Your task to perform on an android device: Do I have any events today? Image 0: 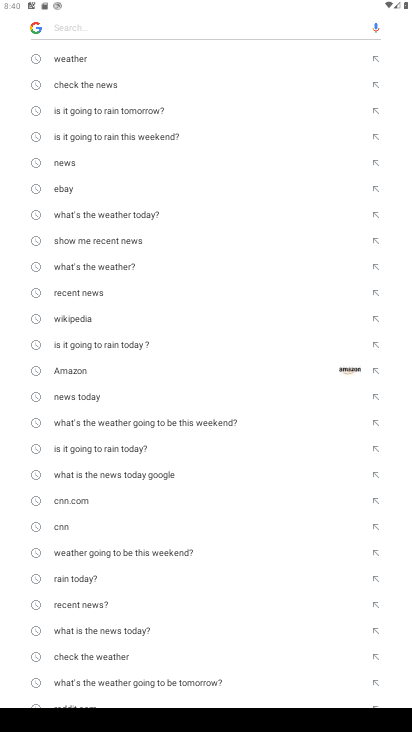
Step 0: press home button
Your task to perform on an android device: Do I have any events today? Image 1: 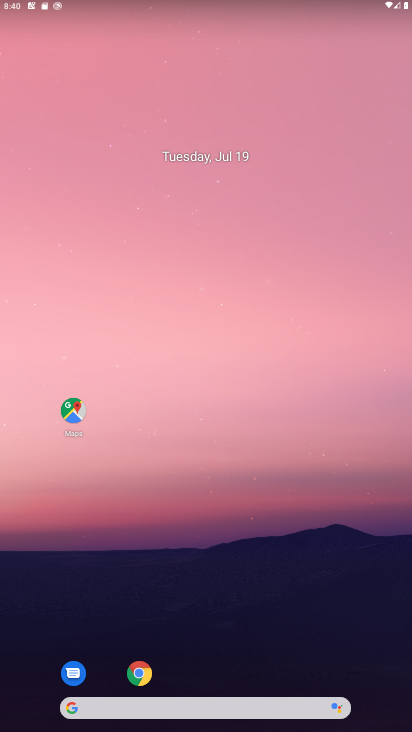
Step 1: task complete